Your task to perform on an android device: turn on priority inbox in the gmail app Image 0: 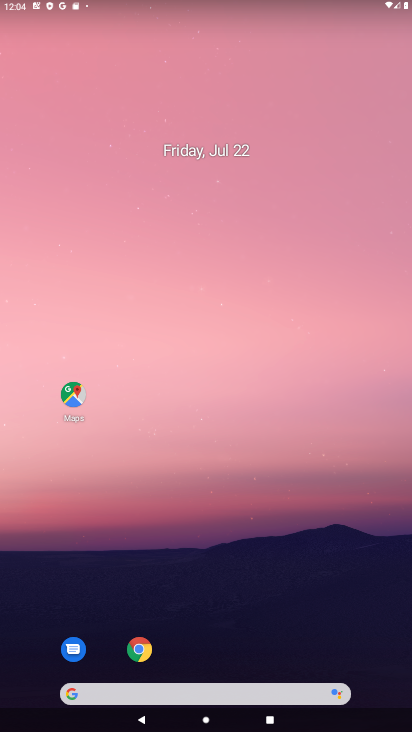
Step 0: drag from (226, 730) to (226, 261)
Your task to perform on an android device: turn on priority inbox in the gmail app Image 1: 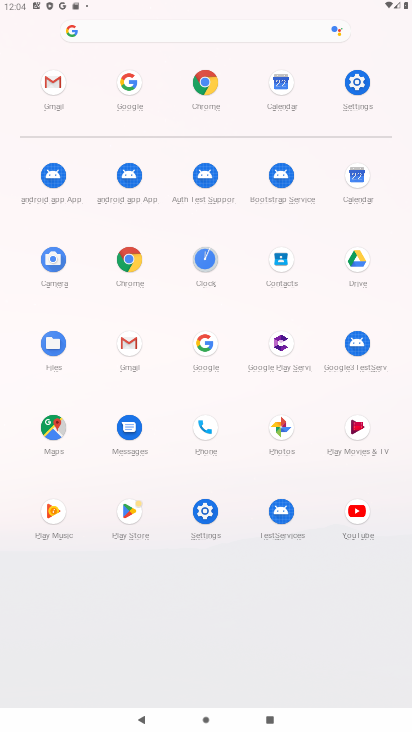
Step 1: click (131, 342)
Your task to perform on an android device: turn on priority inbox in the gmail app Image 2: 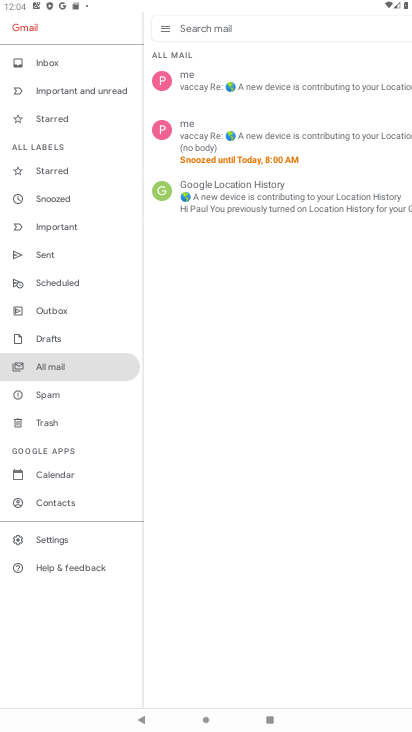
Step 2: click (51, 540)
Your task to perform on an android device: turn on priority inbox in the gmail app Image 3: 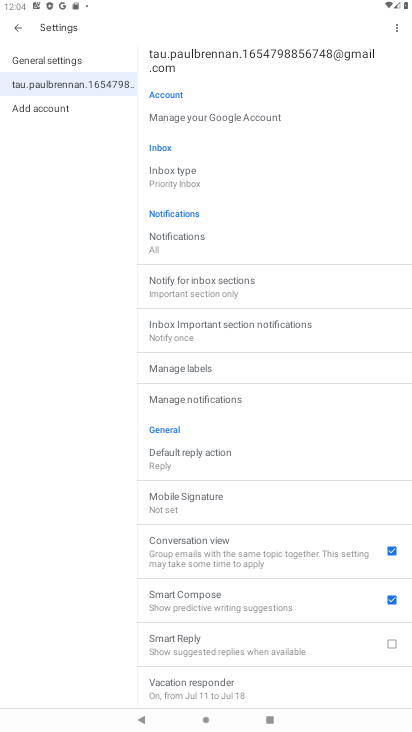
Step 3: task complete